Your task to perform on an android device: Is it going to rain this weekend? Image 0: 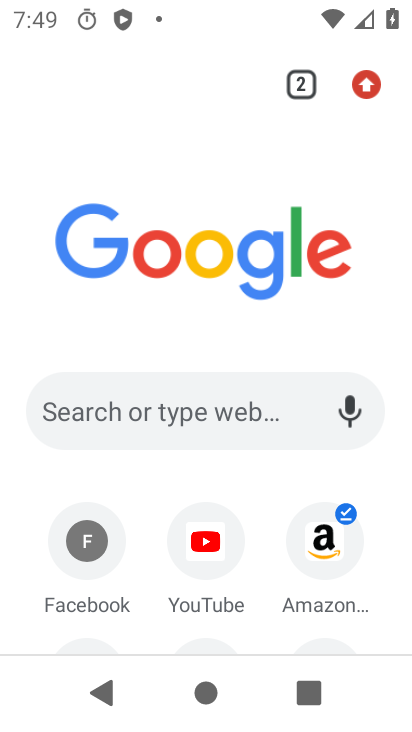
Step 0: press home button
Your task to perform on an android device: Is it going to rain this weekend? Image 1: 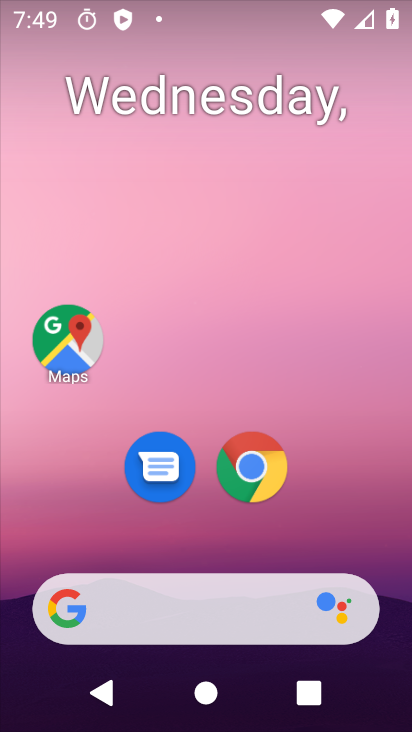
Step 1: task complete